Your task to perform on an android device: turn notification dots on Image 0: 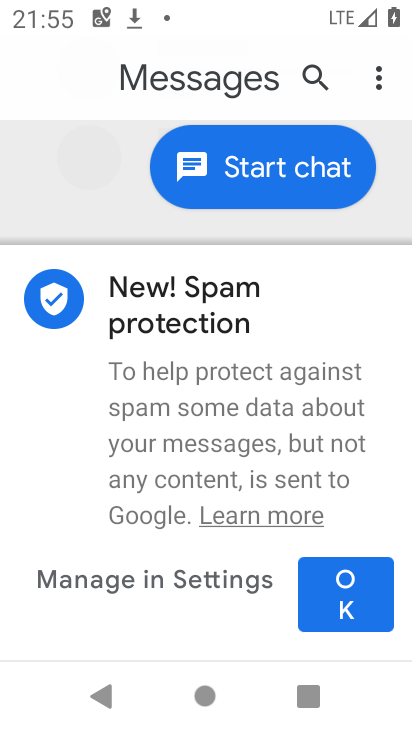
Step 0: press back button
Your task to perform on an android device: turn notification dots on Image 1: 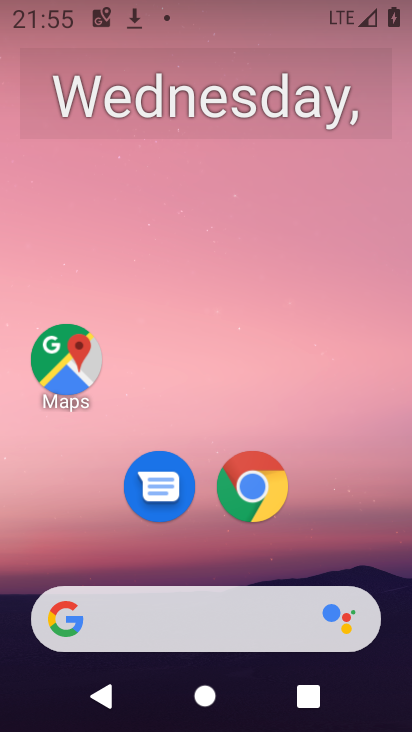
Step 1: drag from (155, 508) to (228, 11)
Your task to perform on an android device: turn notification dots on Image 2: 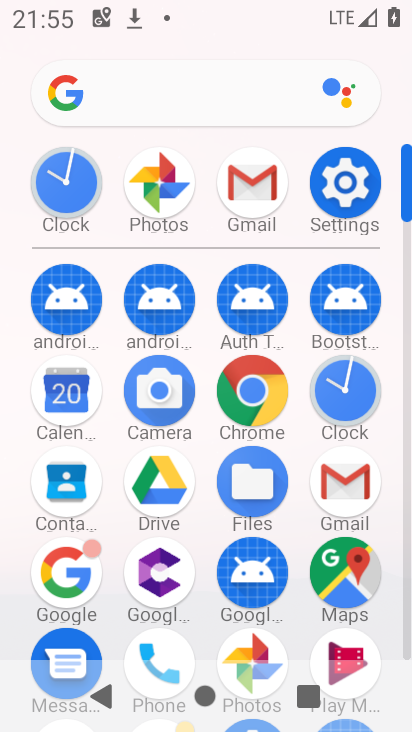
Step 2: click (352, 196)
Your task to perform on an android device: turn notification dots on Image 3: 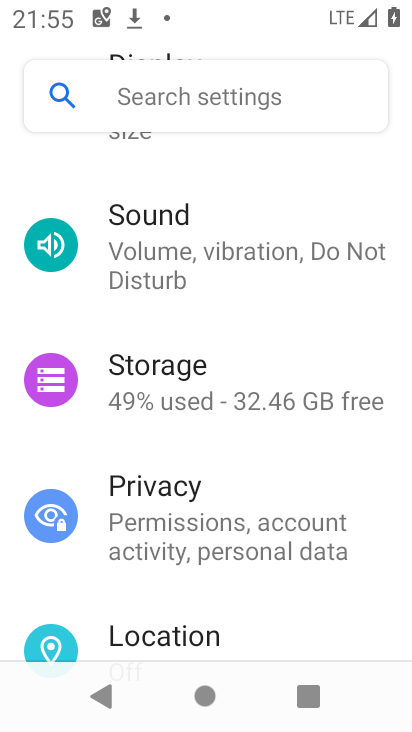
Step 3: drag from (288, 247) to (260, 731)
Your task to perform on an android device: turn notification dots on Image 4: 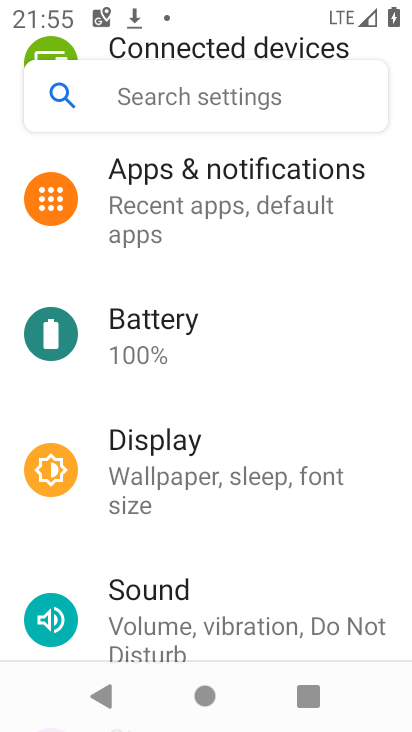
Step 4: click (229, 192)
Your task to perform on an android device: turn notification dots on Image 5: 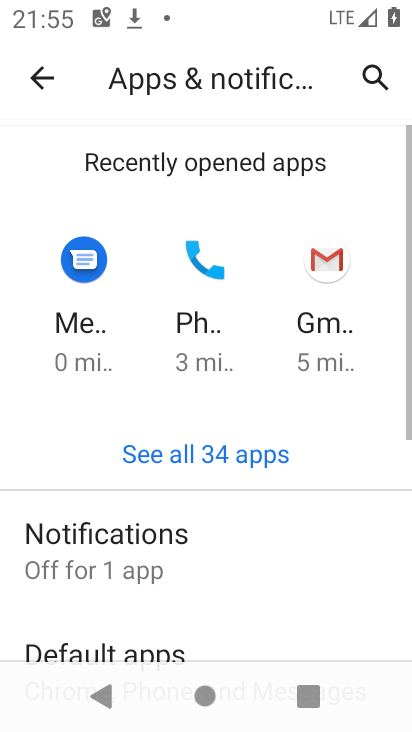
Step 5: drag from (194, 591) to (265, 61)
Your task to perform on an android device: turn notification dots on Image 6: 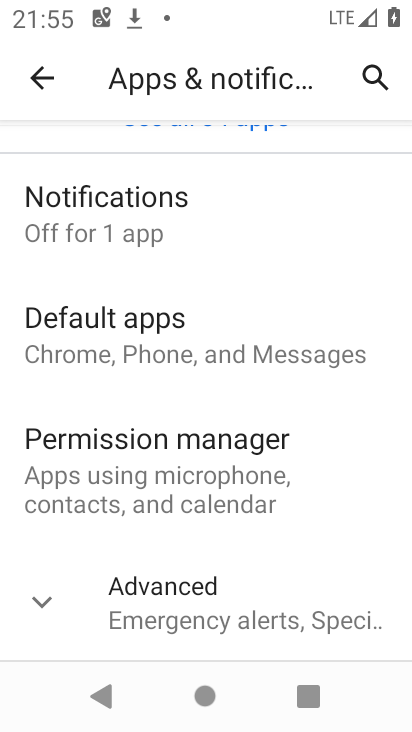
Step 6: click (183, 601)
Your task to perform on an android device: turn notification dots on Image 7: 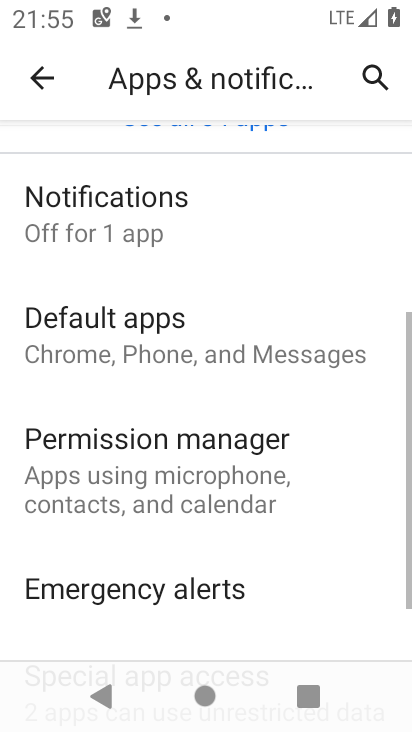
Step 7: drag from (189, 599) to (264, 135)
Your task to perform on an android device: turn notification dots on Image 8: 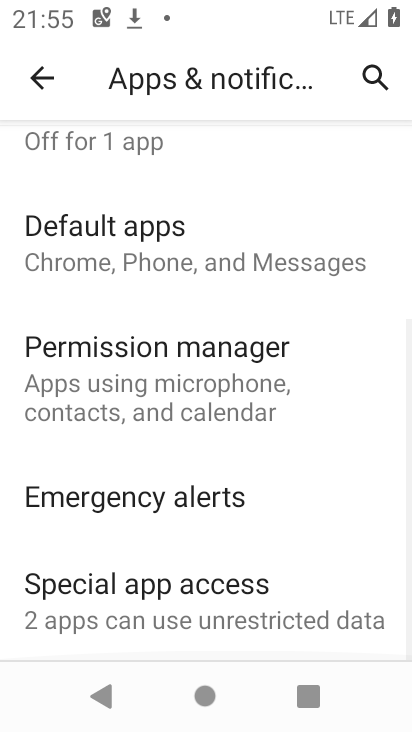
Step 8: drag from (140, 209) to (190, 720)
Your task to perform on an android device: turn notification dots on Image 9: 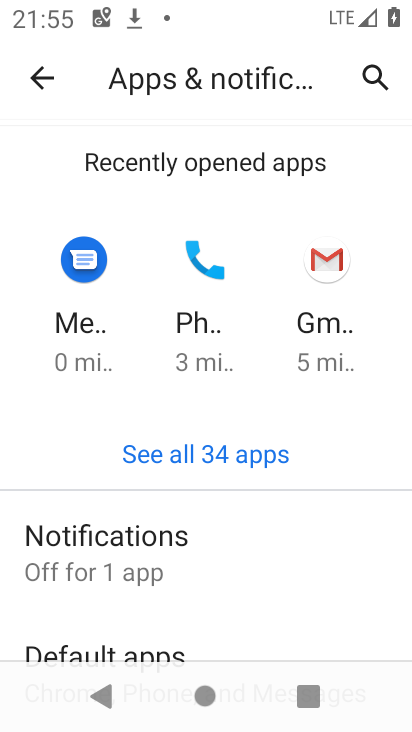
Step 9: click (163, 573)
Your task to perform on an android device: turn notification dots on Image 10: 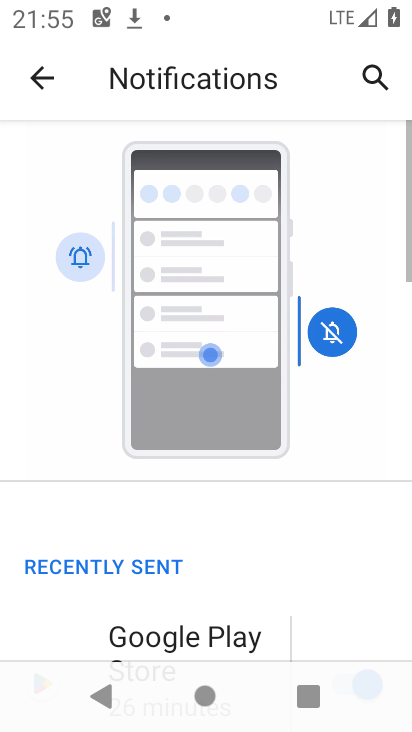
Step 10: drag from (184, 633) to (228, 187)
Your task to perform on an android device: turn notification dots on Image 11: 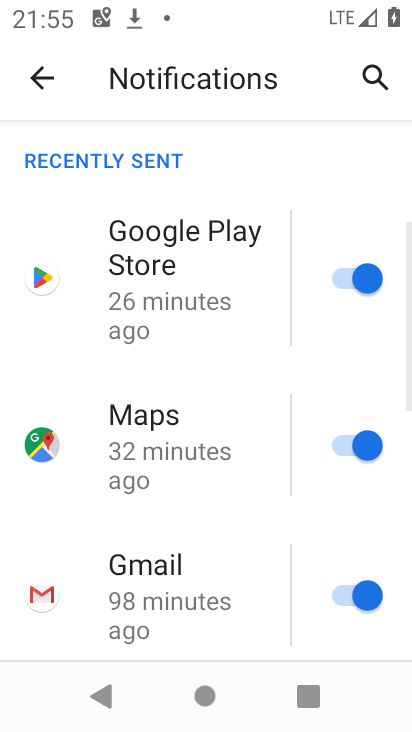
Step 11: drag from (232, 612) to (216, 137)
Your task to perform on an android device: turn notification dots on Image 12: 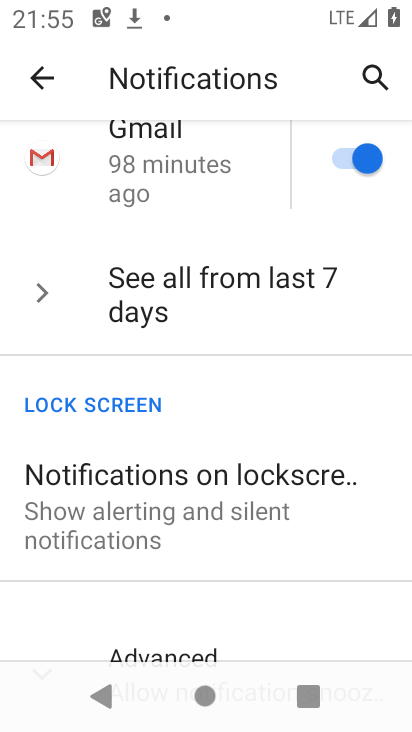
Step 12: drag from (214, 580) to (235, 248)
Your task to perform on an android device: turn notification dots on Image 13: 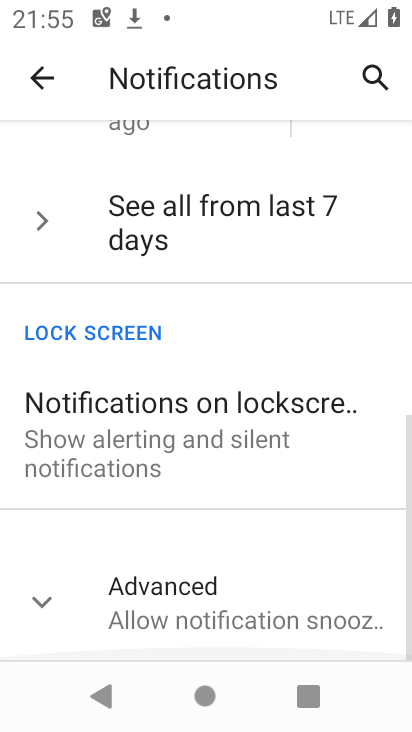
Step 13: click (203, 591)
Your task to perform on an android device: turn notification dots on Image 14: 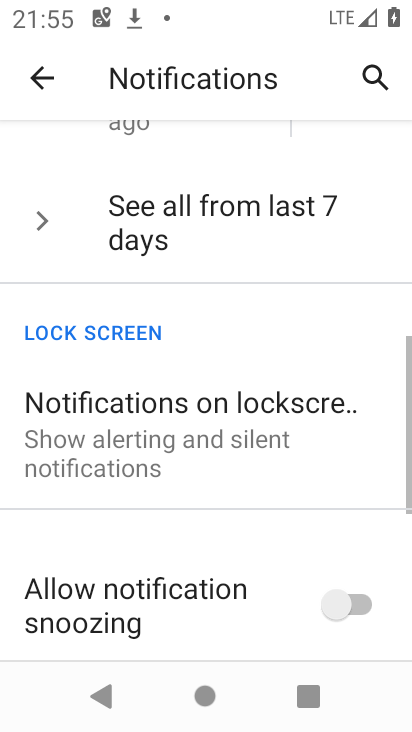
Step 14: task complete